Your task to perform on an android device: toggle pop-ups in chrome Image 0: 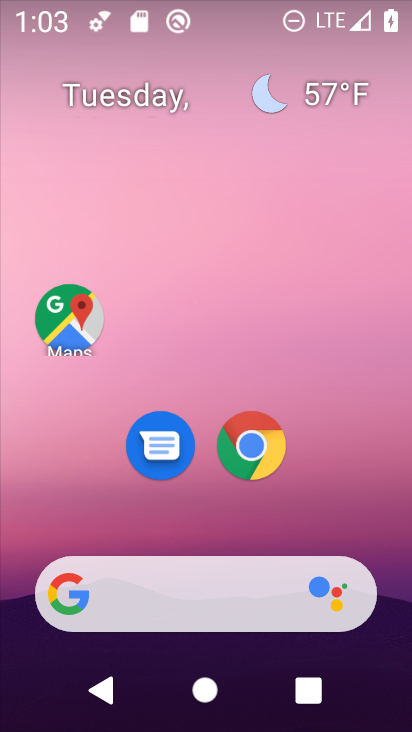
Step 0: drag from (391, 547) to (394, 304)
Your task to perform on an android device: toggle pop-ups in chrome Image 1: 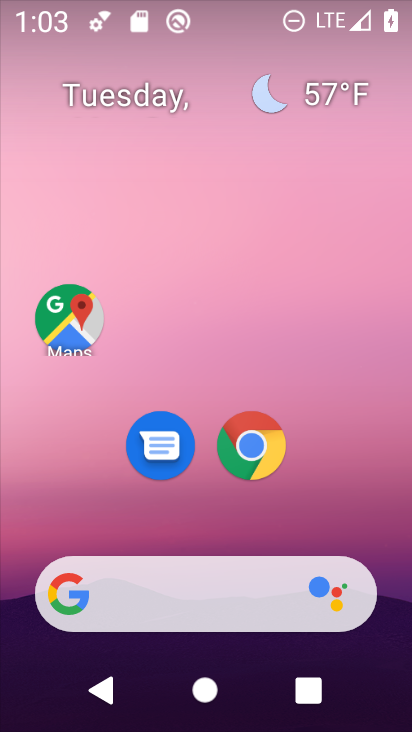
Step 1: drag from (365, 474) to (375, 173)
Your task to perform on an android device: toggle pop-ups in chrome Image 2: 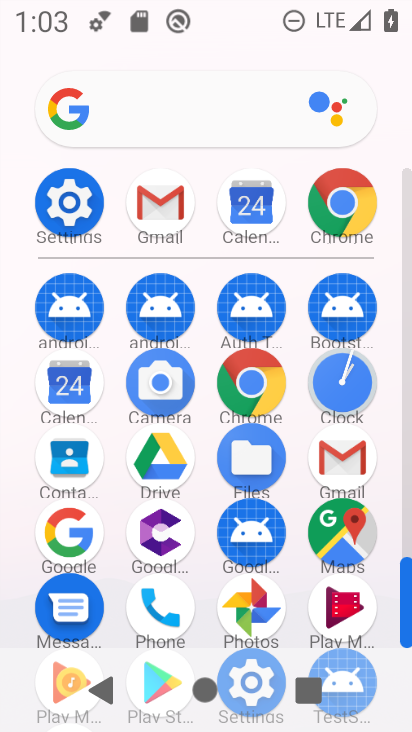
Step 2: click (265, 401)
Your task to perform on an android device: toggle pop-ups in chrome Image 3: 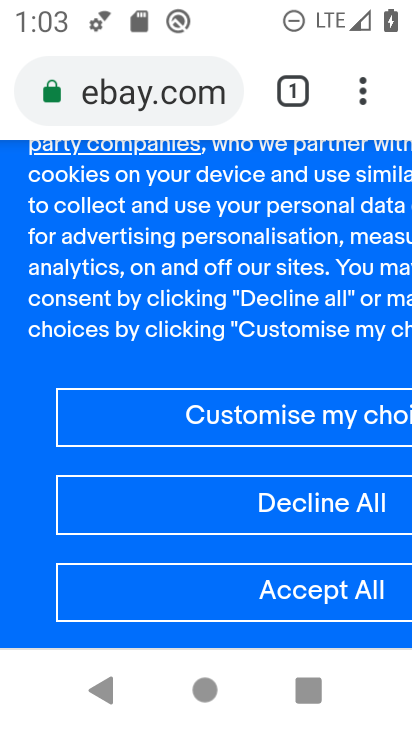
Step 3: click (364, 97)
Your task to perform on an android device: toggle pop-ups in chrome Image 4: 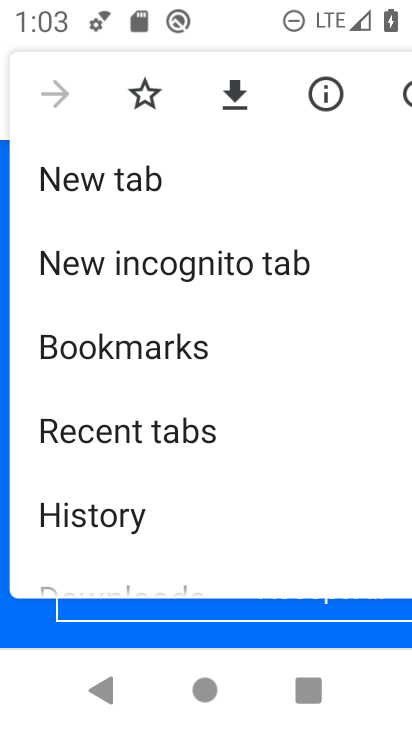
Step 4: drag from (358, 463) to (348, 357)
Your task to perform on an android device: toggle pop-ups in chrome Image 5: 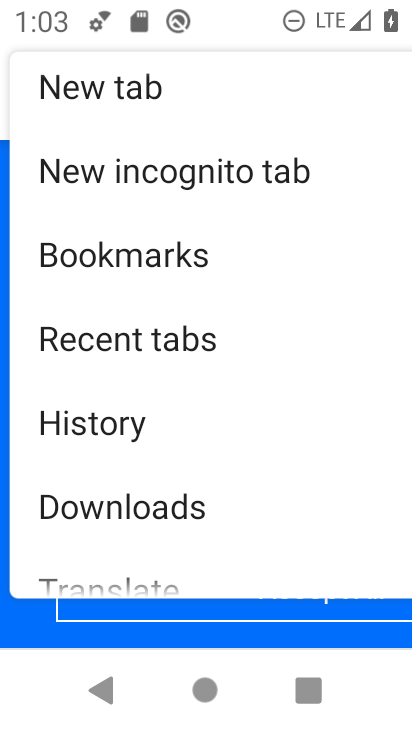
Step 5: drag from (336, 498) to (340, 377)
Your task to perform on an android device: toggle pop-ups in chrome Image 6: 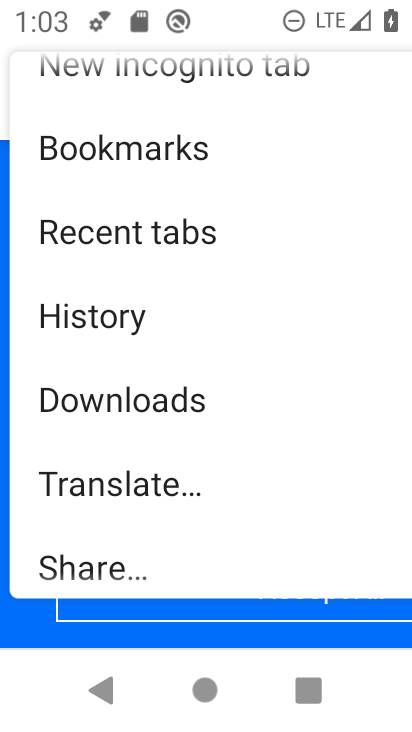
Step 6: drag from (322, 493) to (345, 332)
Your task to perform on an android device: toggle pop-ups in chrome Image 7: 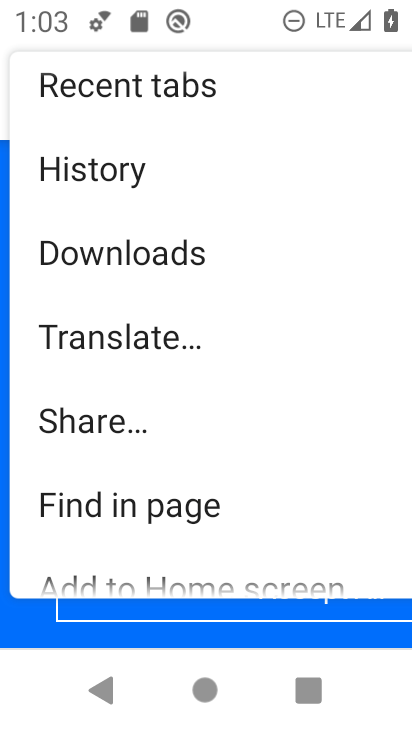
Step 7: drag from (311, 516) to (333, 337)
Your task to perform on an android device: toggle pop-ups in chrome Image 8: 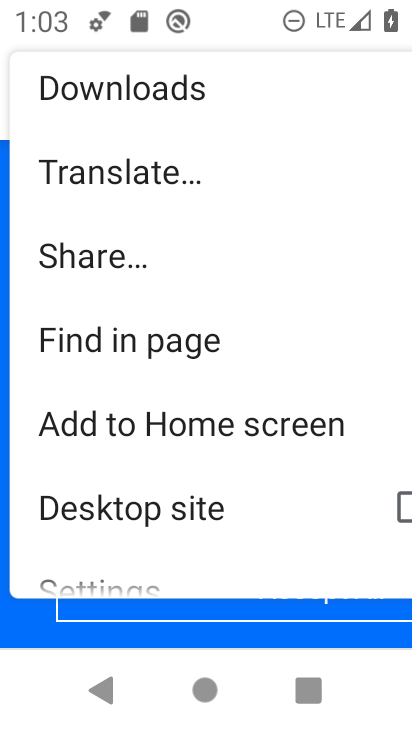
Step 8: drag from (301, 529) to (287, 377)
Your task to perform on an android device: toggle pop-ups in chrome Image 9: 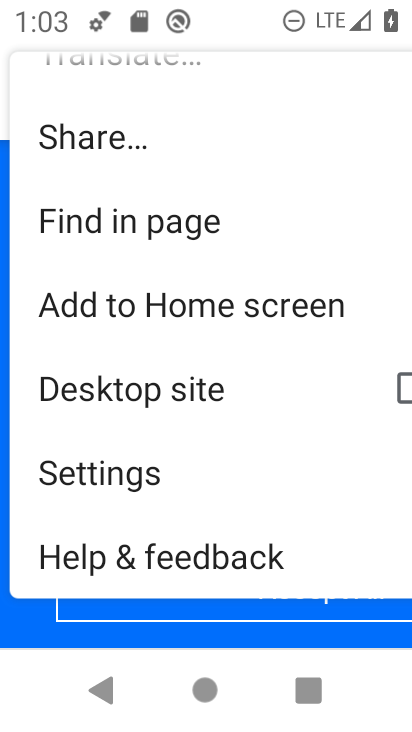
Step 9: click (175, 476)
Your task to perform on an android device: toggle pop-ups in chrome Image 10: 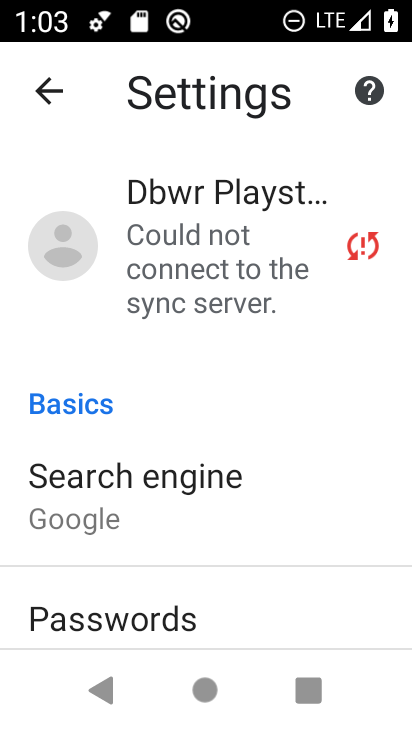
Step 10: drag from (317, 568) to (329, 437)
Your task to perform on an android device: toggle pop-ups in chrome Image 11: 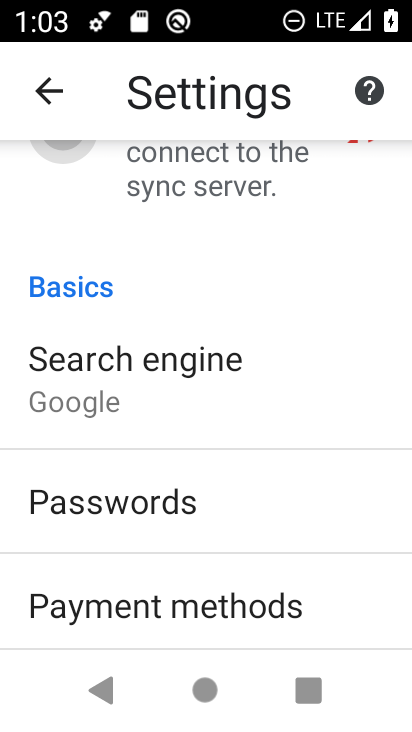
Step 11: drag from (342, 604) to (335, 483)
Your task to perform on an android device: toggle pop-ups in chrome Image 12: 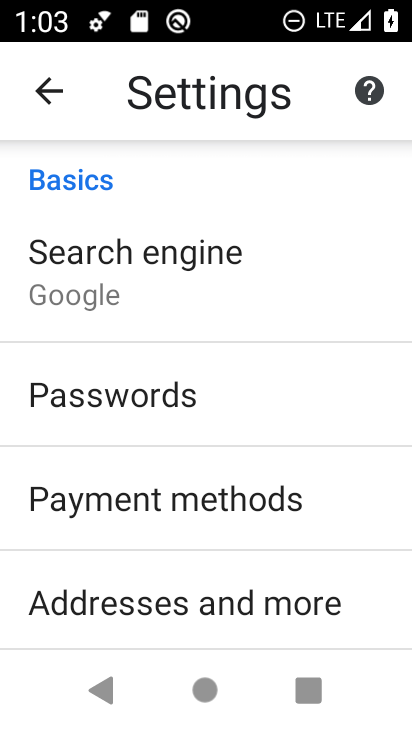
Step 12: drag from (336, 596) to (347, 499)
Your task to perform on an android device: toggle pop-ups in chrome Image 13: 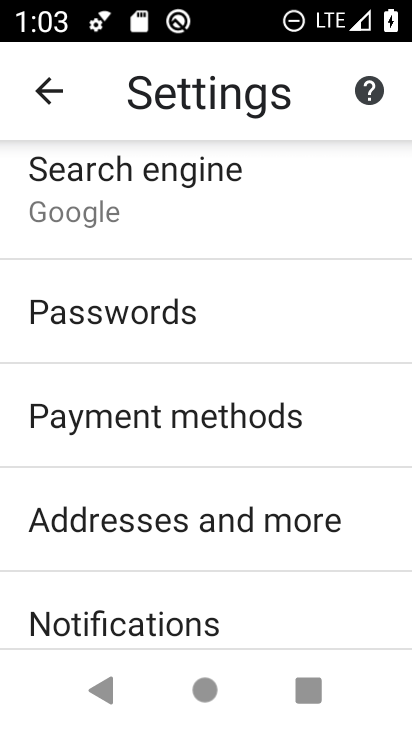
Step 13: drag from (361, 602) to (368, 478)
Your task to perform on an android device: toggle pop-ups in chrome Image 14: 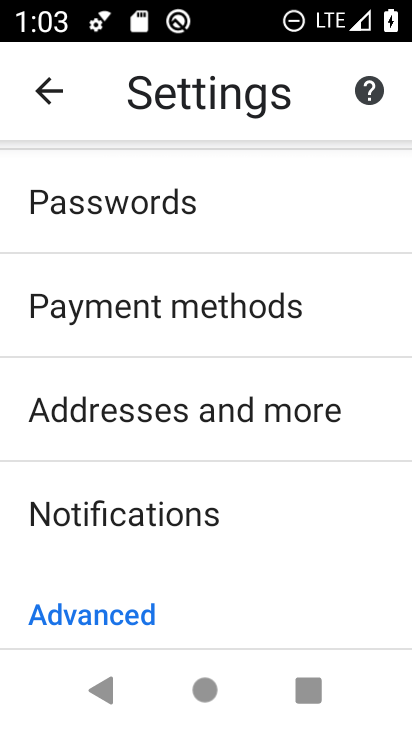
Step 14: drag from (346, 603) to (328, 455)
Your task to perform on an android device: toggle pop-ups in chrome Image 15: 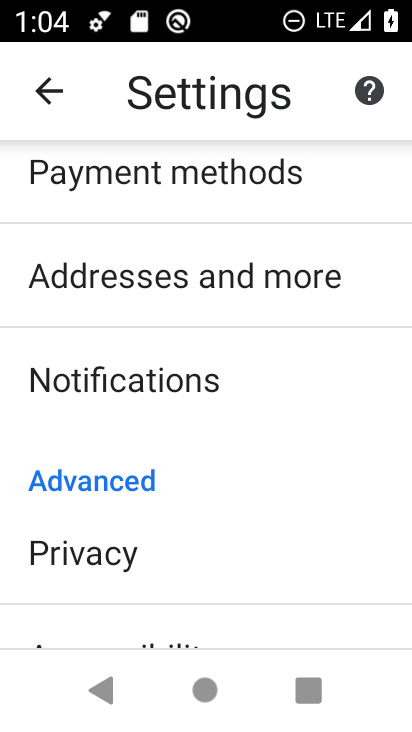
Step 15: drag from (301, 587) to (325, 460)
Your task to perform on an android device: toggle pop-ups in chrome Image 16: 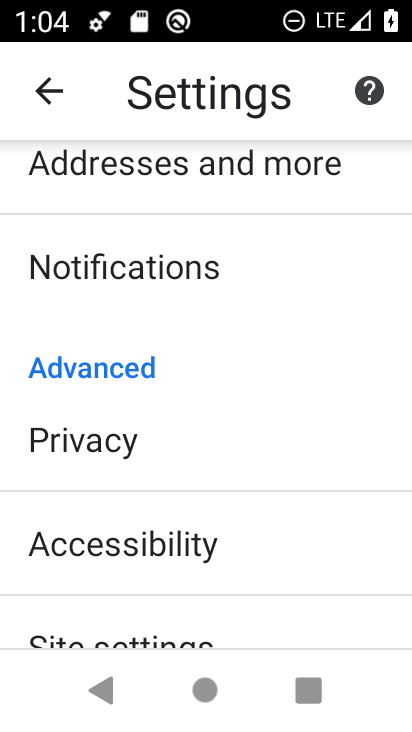
Step 16: drag from (345, 602) to (335, 437)
Your task to perform on an android device: toggle pop-ups in chrome Image 17: 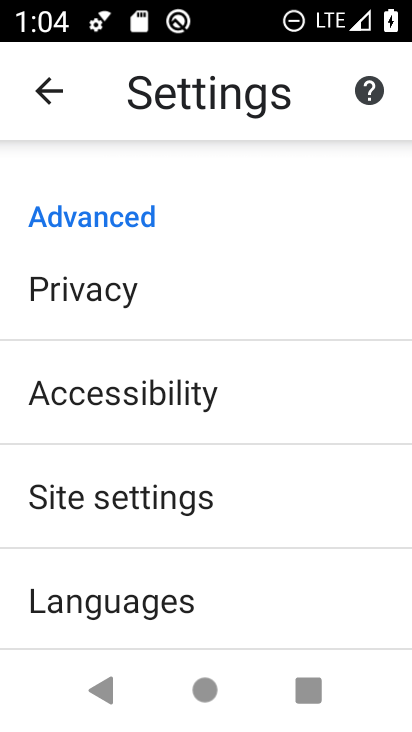
Step 17: click (289, 517)
Your task to perform on an android device: toggle pop-ups in chrome Image 18: 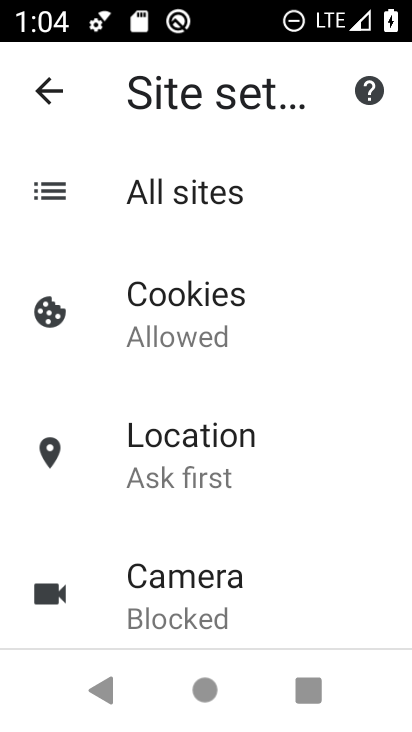
Step 18: drag from (310, 574) to (316, 459)
Your task to perform on an android device: toggle pop-ups in chrome Image 19: 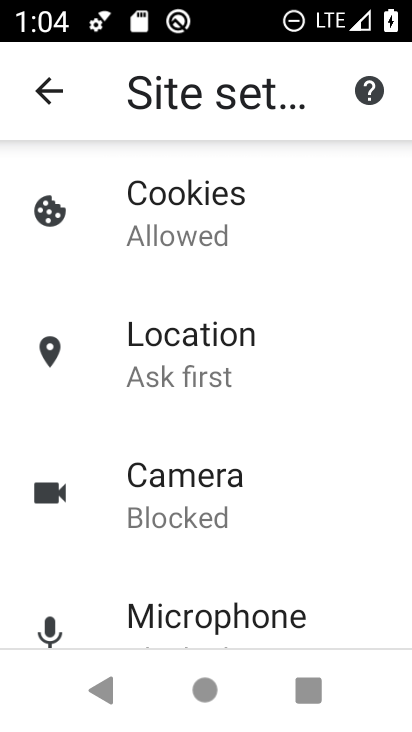
Step 19: drag from (352, 575) to (356, 466)
Your task to perform on an android device: toggle pop-ups in chrome Image 20: 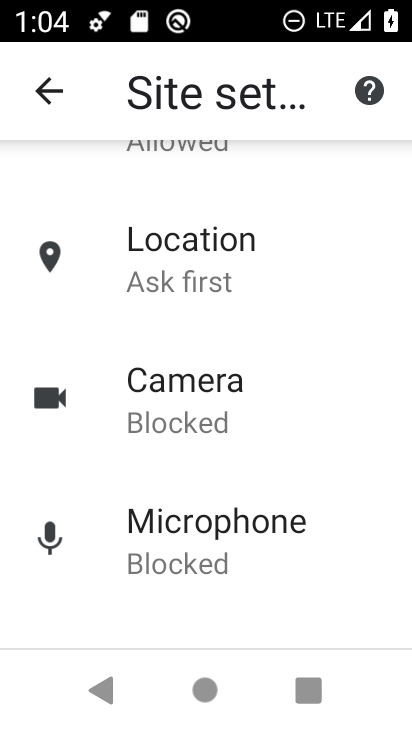
Step 20: drag from (347, 588) to (355, 482)
Your task to perform on an android device: toggle pop-ups in chrome Image 21: 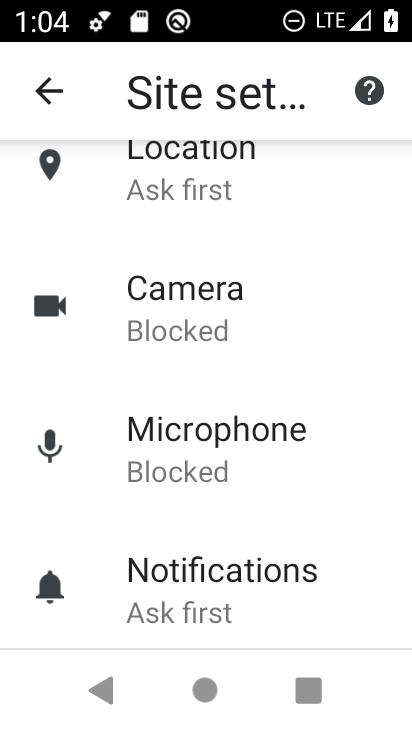
Step 21: drag from (347, 587) to (351, 468)
Your task to perform on an android device: toggle pop-ups in chrome Image 22: 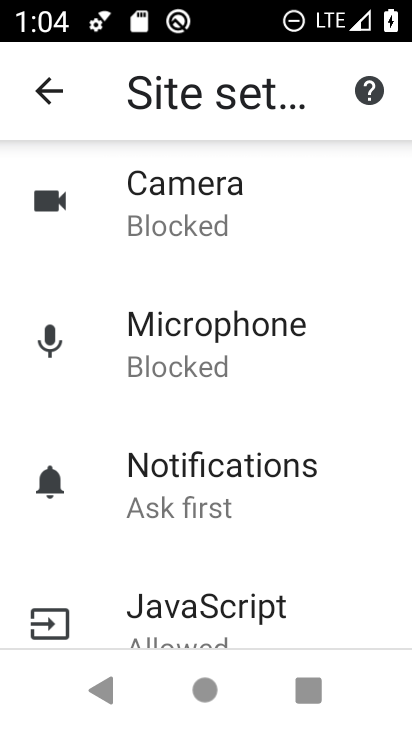
Step 22: drag from (361, 581) to (345, 387)
Your task to perform on an android device: toggle pop-ups in chrome Image 23: 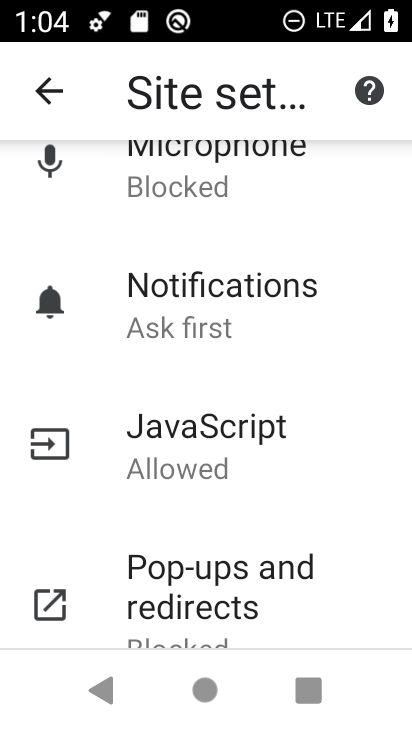
Step 23: drag from (346, 599) to (347, 472)
Your task to perform on an android device: toggle pop-ups in chrome Image 24: 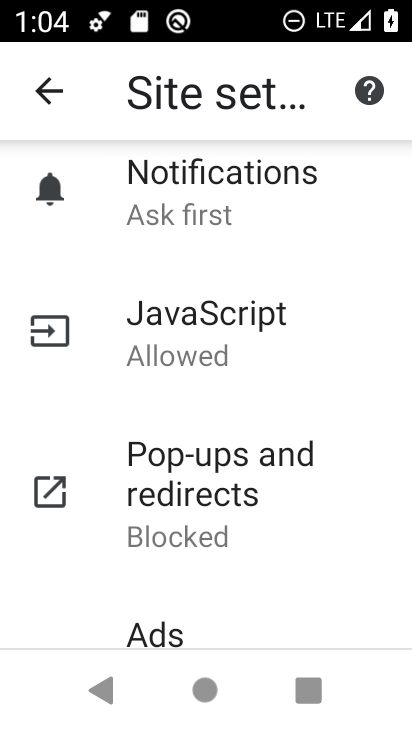
Step 24: click (280, 497)
Your task to perform on an android device: toggle pop-ups in chrome Image 25: 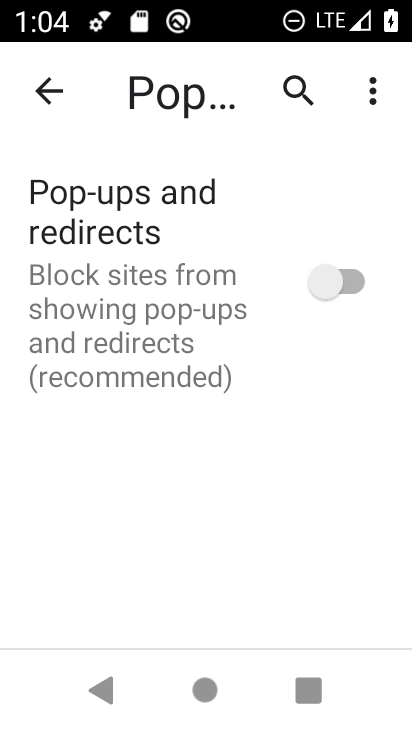
Step 25: click (346, 286)
Your task to perform on an android device: toggle pop-ups in chrome Image 26: 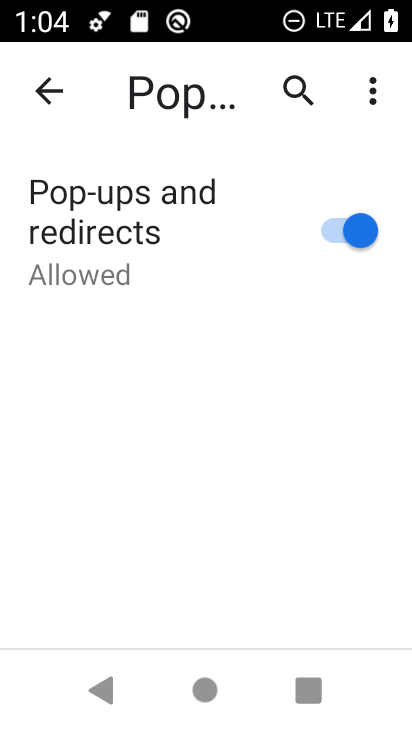
Step 26: task complete